Your task to perform on an android device: Open settings on Google Maps Image 0: 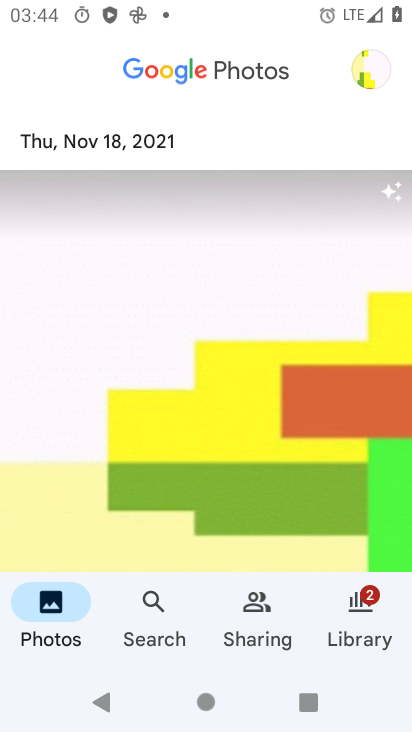
Step 0: press home button
Your task to perform on an android device: Open settings on Google Maps Image 1: 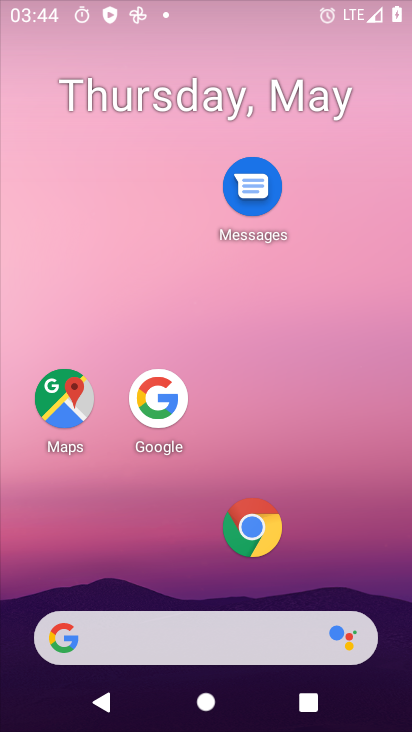
Step 1: drag from (166, 614) to (247, 272)
Your task to perform on an android device: Open settings on Google Maps Image 2: 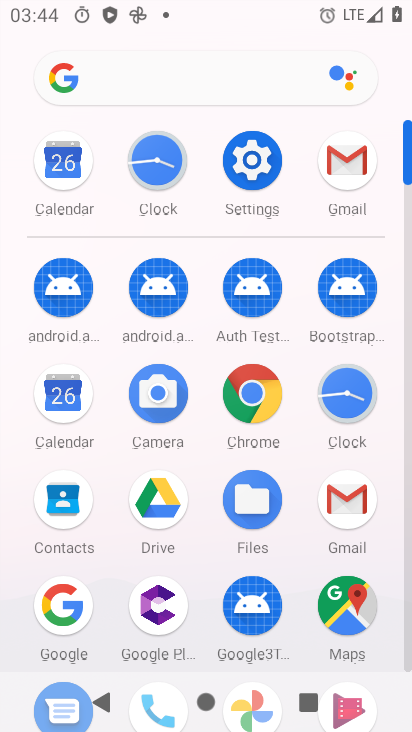
Step 2: click (340, 604)
Your task to perform on an android device: Open settings on Google Maps Image 3: 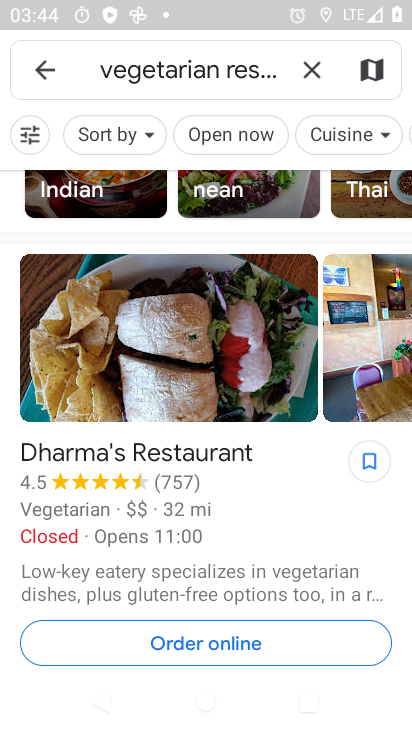
Step 3: click (338, 179)
Your task to perform on an android device: Open settings on Google Maps Image 4: 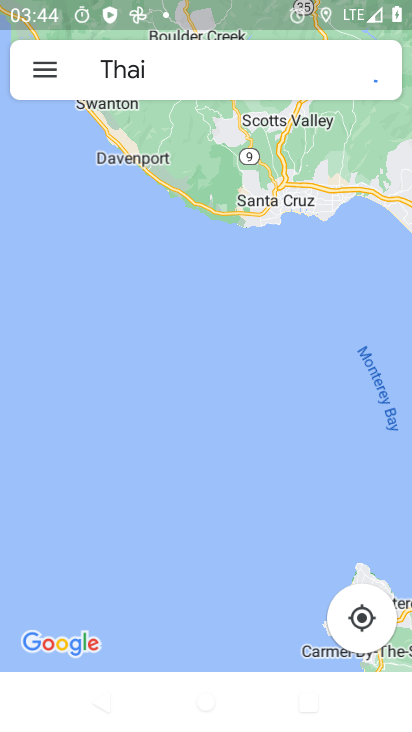
Step 4: click (53, 67)
Your task to perform on an android device: Open settings on Google Maps Image 5: 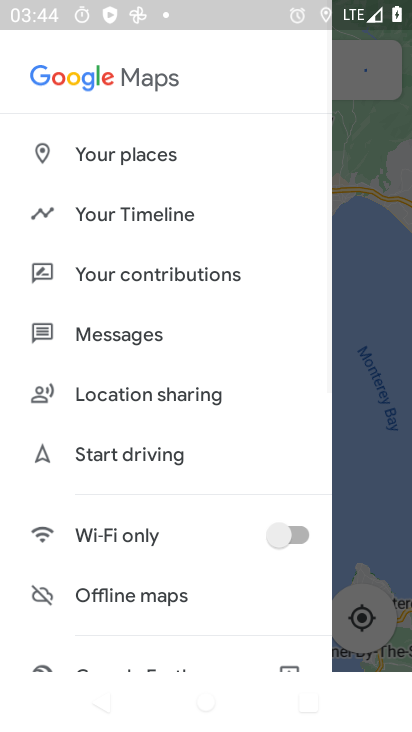
Step 5: drag from (120, 568) to (195, 59)
Your task to perform on an android device: Open settings on Google Maps Image 6: 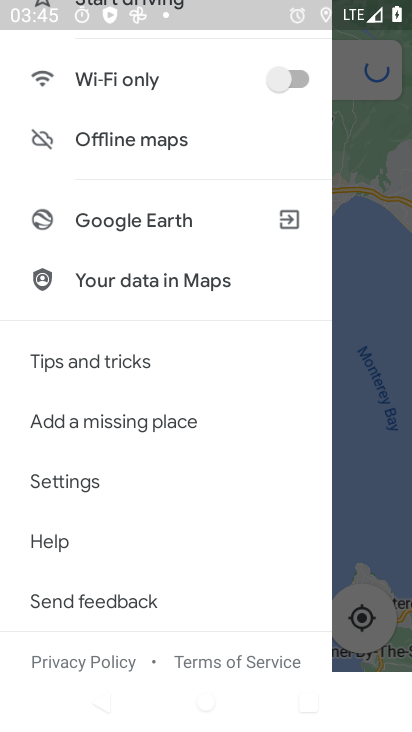
Step 6: click (86, 485)
Your task to perform on an android device: Open settings on Google Maps Image 7: 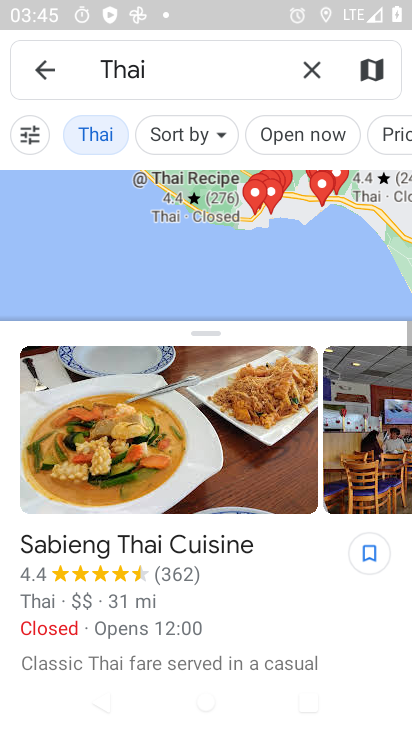
Step 7: task complete